Your task to perform on an android device: check android version Image 0: 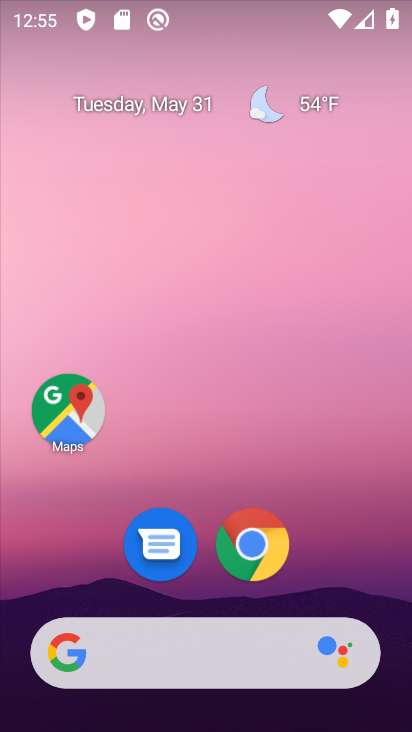
Step 0: drag from (223, 576) to (314, 11)
Your task to perform on an android device: check android version Image 1: 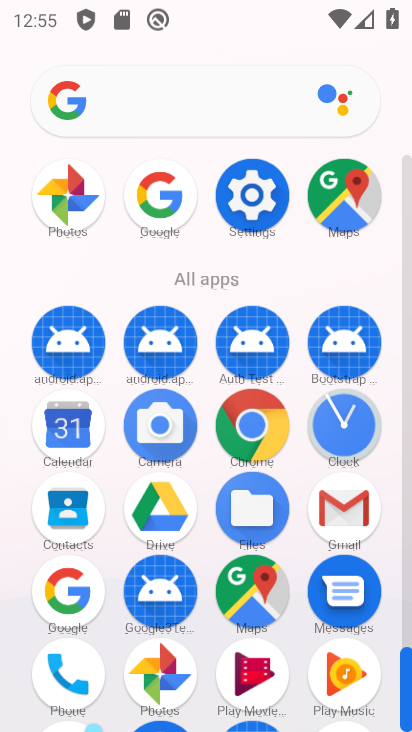
Step 1: click (249, 200)
Your task to perform on an android device: check android version Image 2: 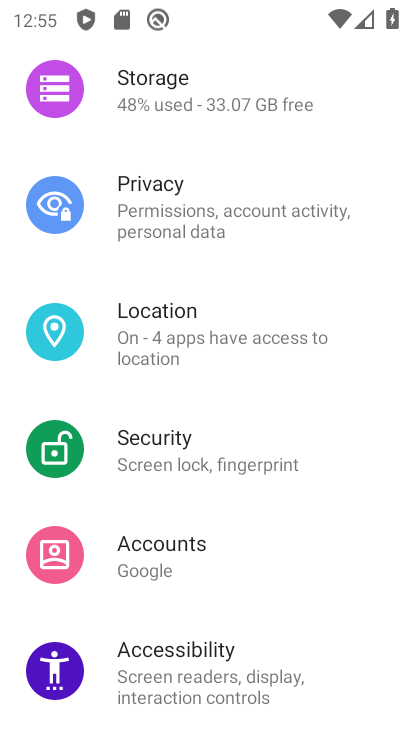
Step 2: drag from (212, 681) to (274, 89)
Your task to perform on an android device: check android version Image 3: 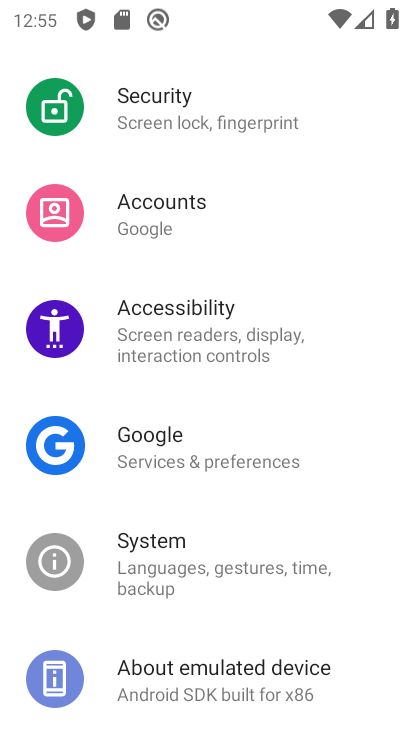
Step 3: click (203, 679)
Your task to perform on an android device: check android version Image 4: 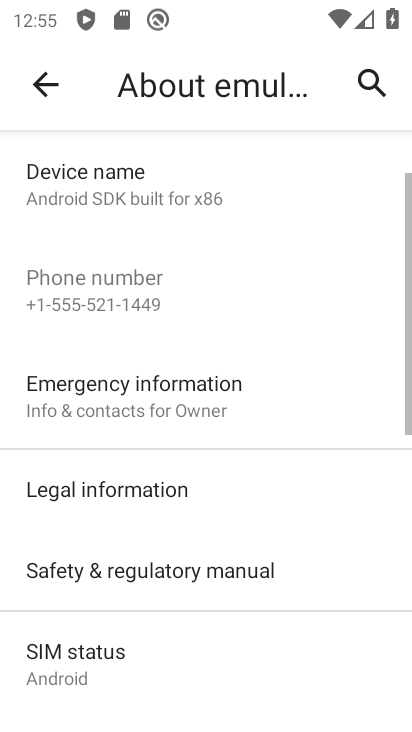
Step 4: drag from (194, 690) to (232, 109)
Your task to perform on an android device: check android version Image 5: 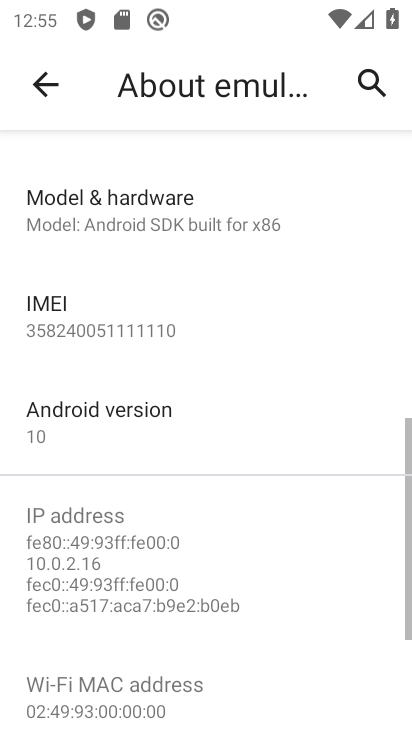
Step 5: click (170, 451)
Your task to perform on an android device: check android version Image 6: 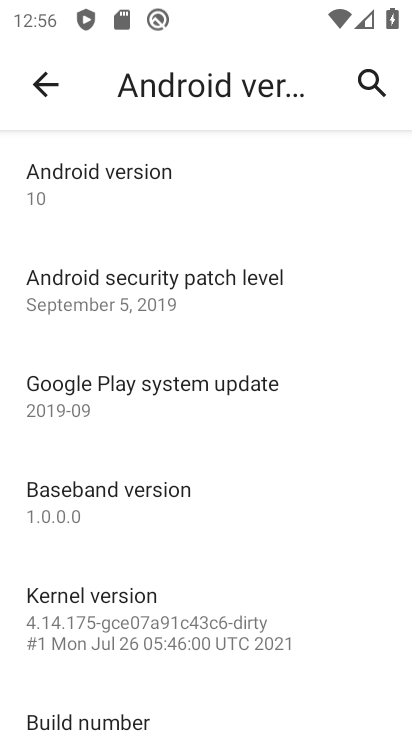
Step 6: task complete